Your task to perform on an android device: Open sound settings Image 0: 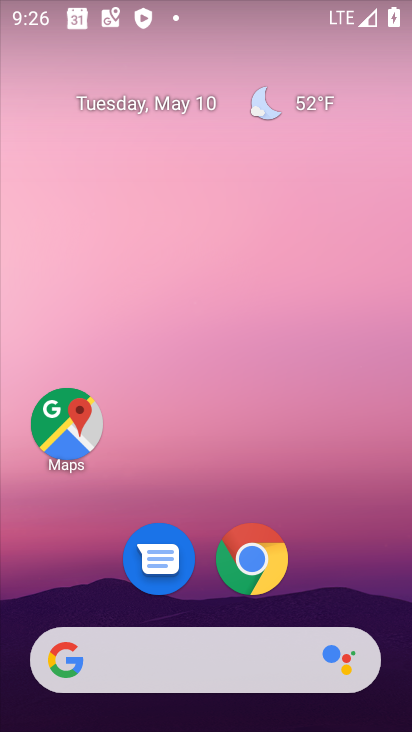
Step 0: drag from (320, 515) to (242, 3)
Your task to perform on an android device: Open sound settings Image 1: 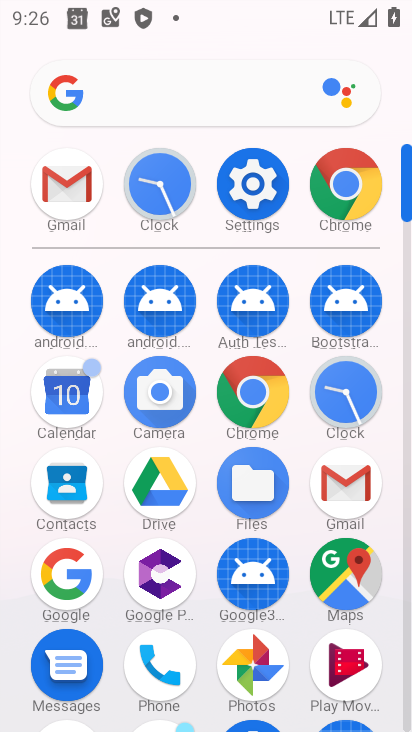
Step 1: drag from (13, 545) to (27, 187)
Your task to perform on an android device: Open sound settings Image 2: 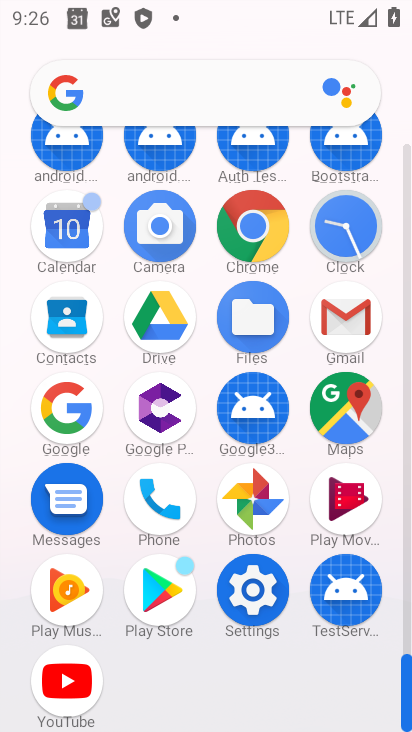
Step 2: click (249, 589)
Your task to perform on an android device: Open sound settings Image 3: 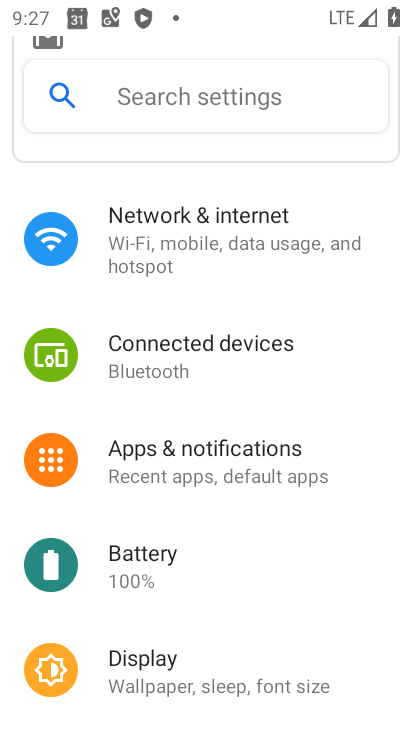
Step 3: drag from (239, 568) to (257, 149)
Your task to perform on an android device: Open sound settings Image 4: 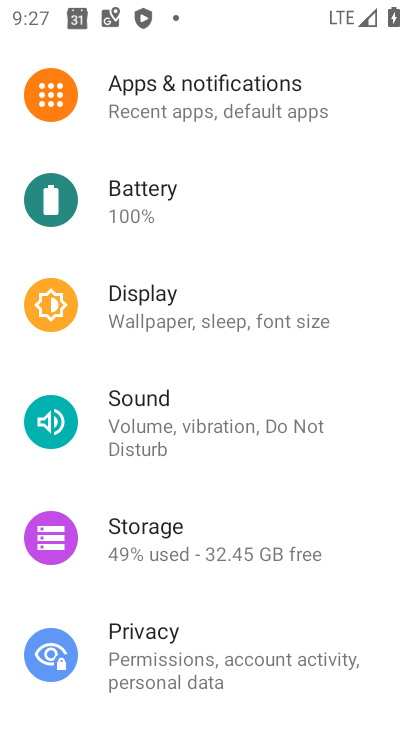
Step 4: drag from (245, 519) to (244, 151)
Your task to perform on an android device: Open sound settings Image 5: 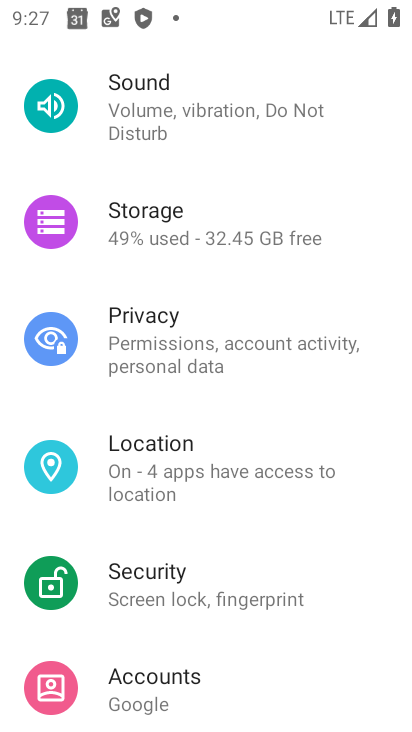
Step 5: click (196, 110)
Your task to perform on an android device: Open sound settings Image 6: 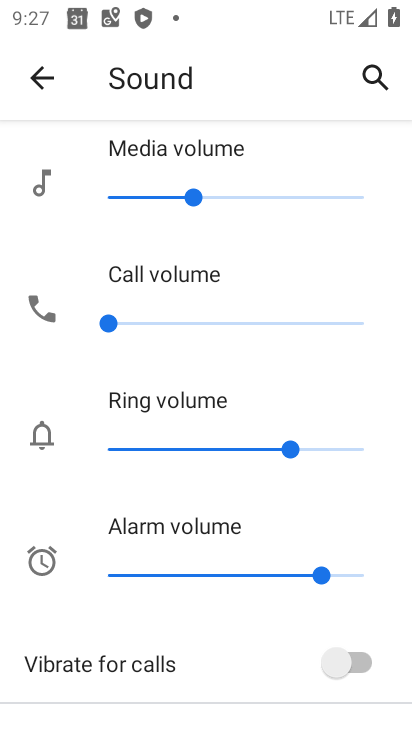
Step 6: drag from (155, 595) to (191, 157)
Your task to perform on an android device: Open sound settings Image 7: 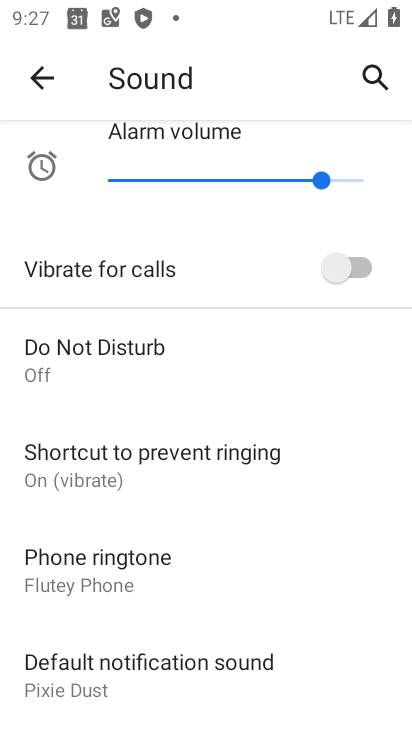
Step 7: drag from (201, 516) to (204, 148)
Your task to perform on an android device: Open sound settings Image 8: 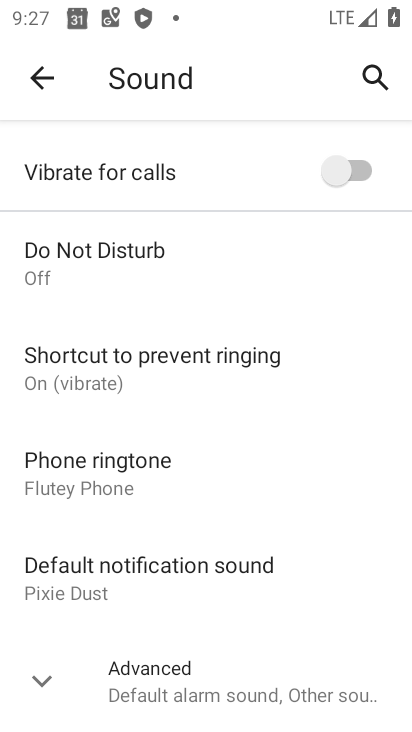
Step 8: drag from (163, 523) to (207, 134)
Your task to perform on an android device: Open sound settings Image 9: 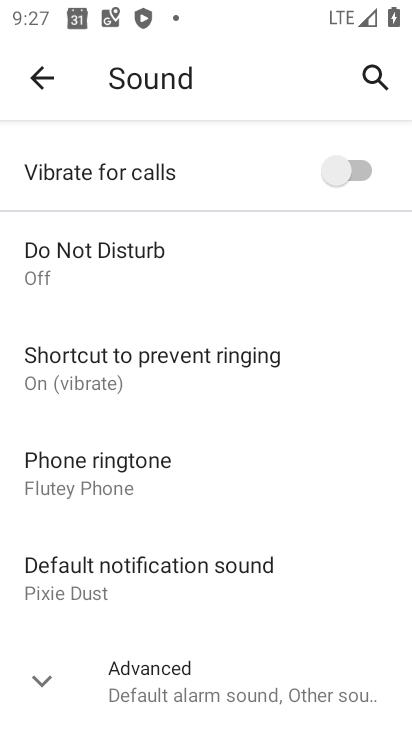
Step 9: click (39, 684)
Your task to perform on an android device: Open sound settings Image 10: 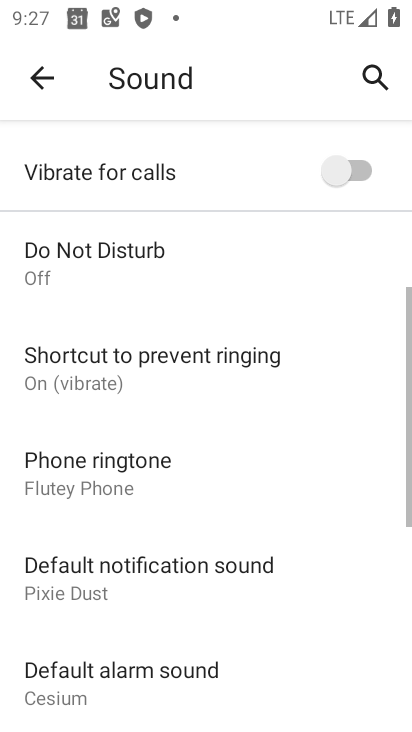
Step 10: task complete